Your task to perform on an android device: turn pop-ups off in chrome Image 0: 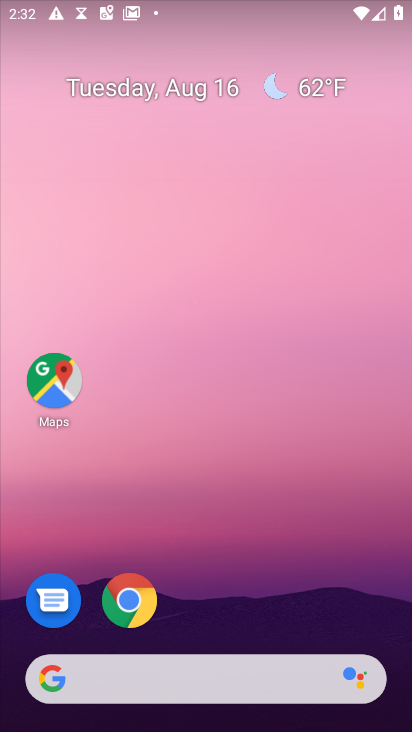
Step 0: click (118, 617)
Your task to perform on an android device: turn pop-ups off in chrome Image 1: 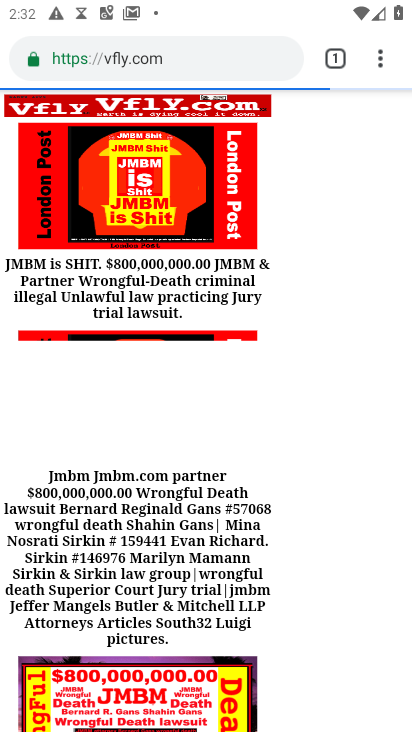
Step 1: drag from (386, 60) to (209, 618)
Your task to perform on an android device: turn pop-ups off in chrome Image 2: 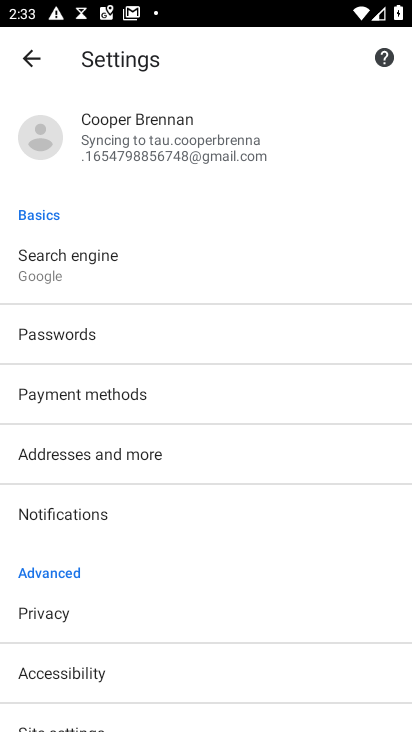
Step 2: drag from (162, 592) to (199, 194)
Your task to perform on an android device: turn pop-ups off in chrome Image 3: 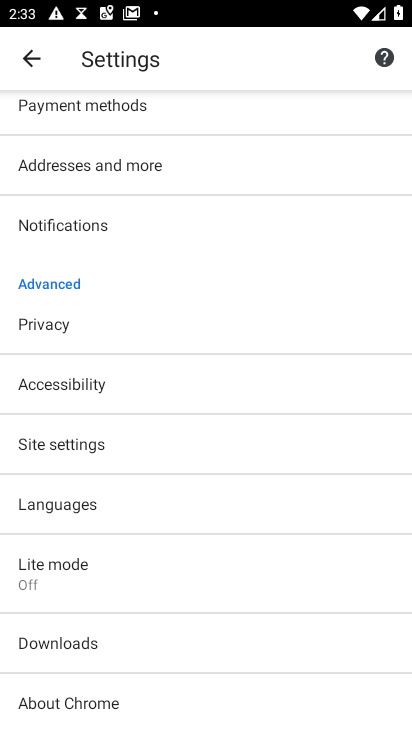
Step 3: click (81, 444)
Your task to perform on an android device: turn pop-ups off in chrome Image 4: 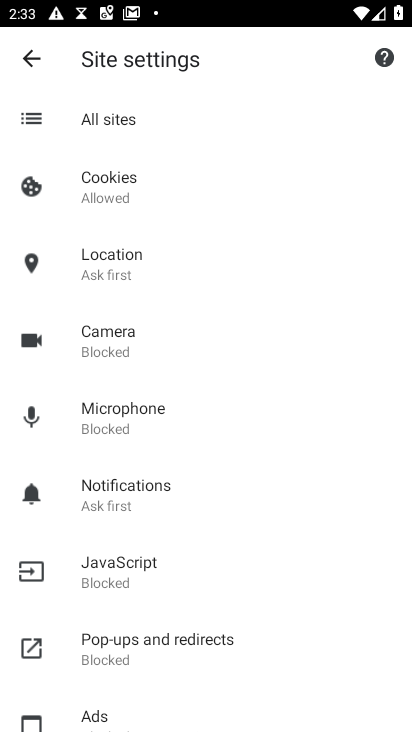
Step 4: click (133, 639)
Your task to perform on an android device: turn pop-ups off in chrome Image 5: 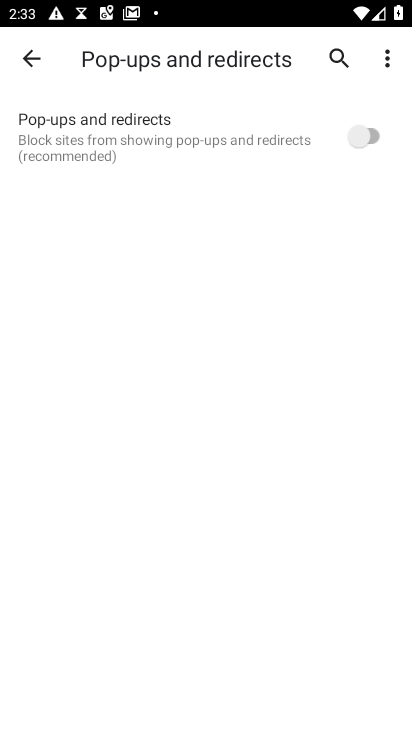
Step 5: task complete